Your task to perform on an android device: What's the weather today? Image 0: 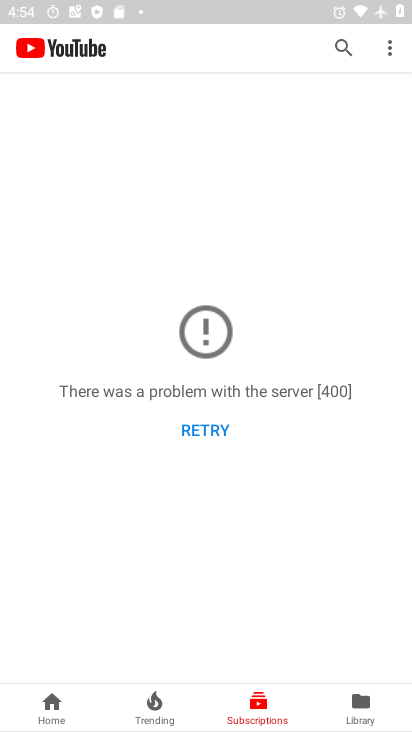
Step 0: press back button
Your task to perform on an android device: What's the weather today? Image 1: 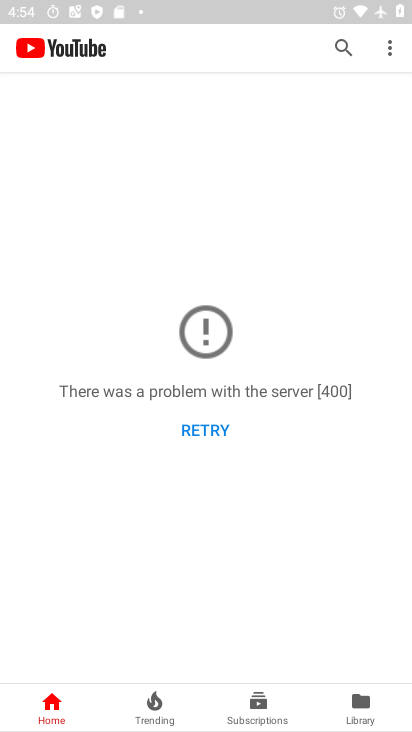
Step 1: press home button
Your task to perform on an android device: What's the weather today? Image 2: 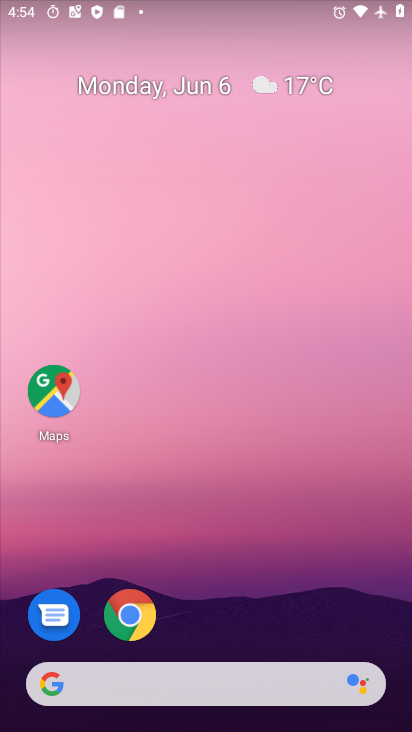
Step 2: drag from (200, 580) to (200, 43)
Your task to perform on an android device: What's the weather today? Image 3: 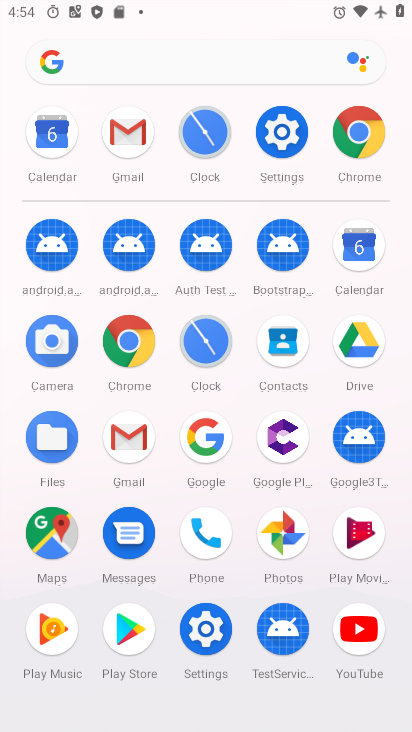
Step 3: click (354, 130)
Your task to perform on an android device: What's the weather today? Image 4: 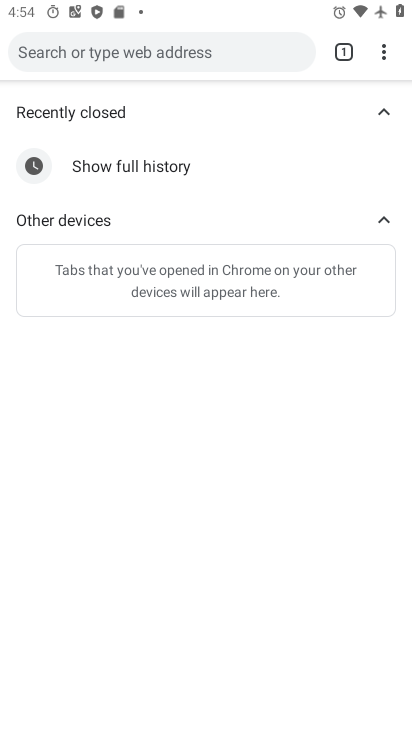
Step 4: click (217, 51)
Your task to perform on an android device: What's the weather today? Image 5: 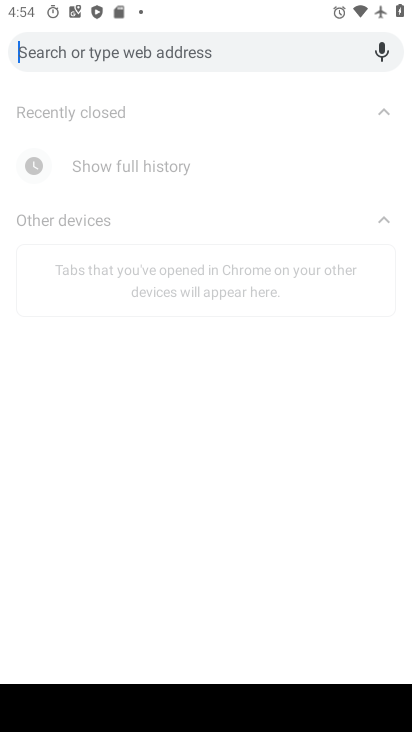
Step 5: type "What's the weather today?"
Your task to perform on an android device: What's the weather today? Image 6: 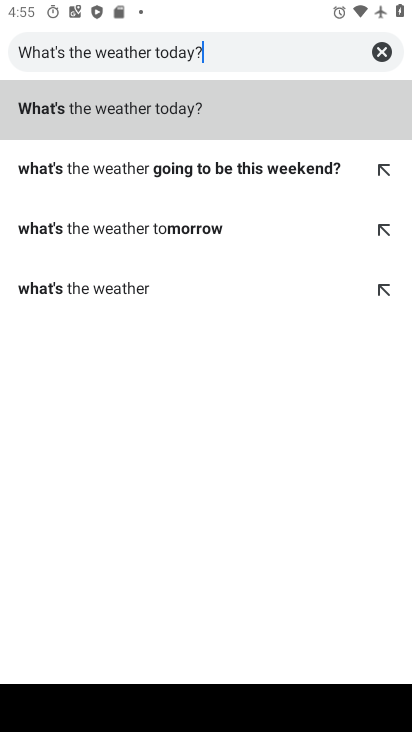
Step 6: type ""
Your task to perform on an android device: What's the weather today? Image 7: 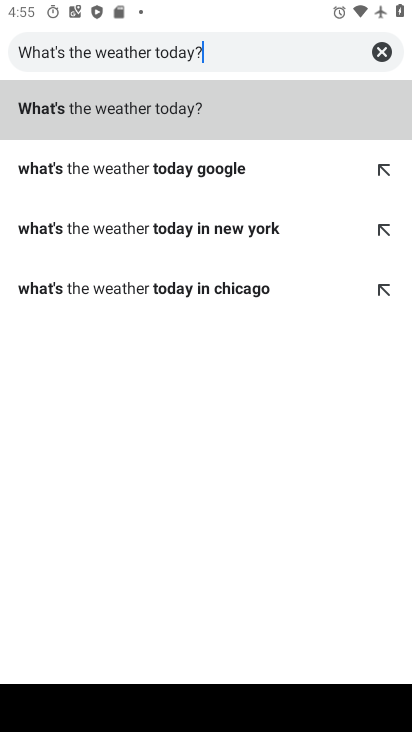
Step 7: click (206, 118)
Your task to perform on an android device: What's the weather today? Image 8: 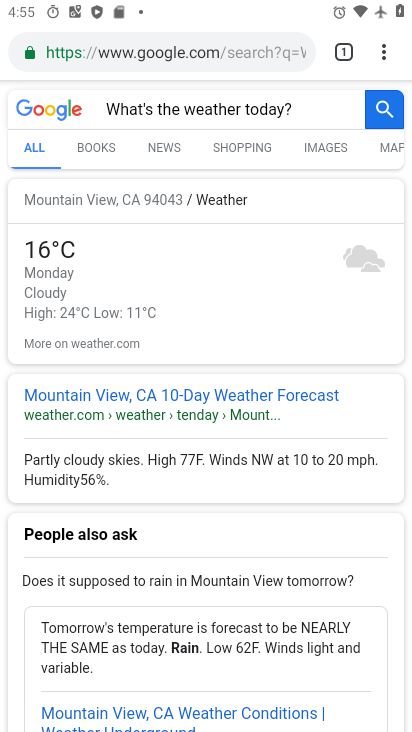
Step 8: task complete